Your task to perform on an android device: Open Wikipedia Image 0: 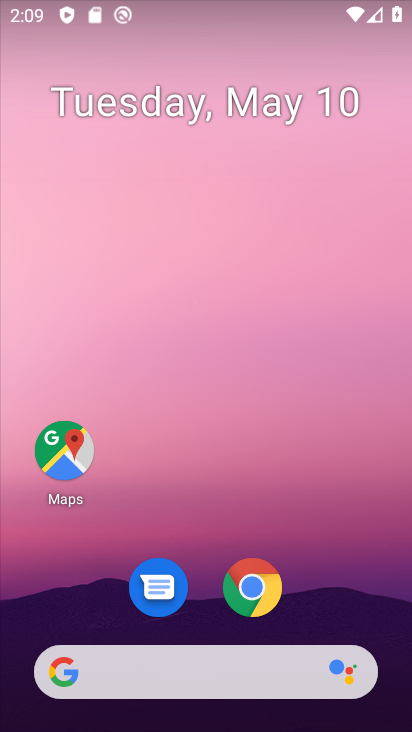
Step 0: click (258, 594)
Your task to perform on an android device: Open Wikipedia Image 1: 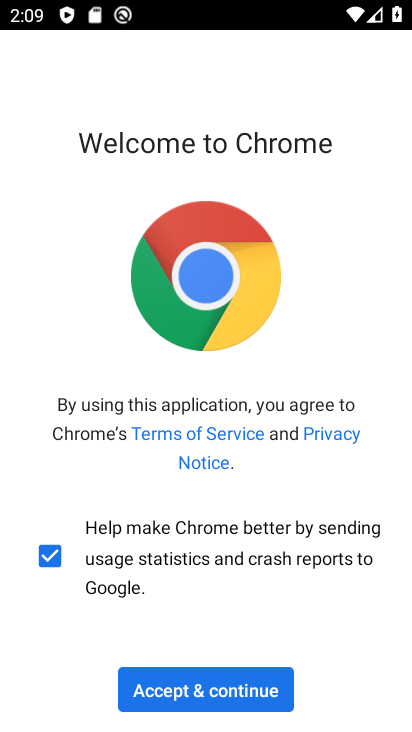
Step 1: click (232, 701)
Your task to perform on an android device: Open Wikipedia Image 2: 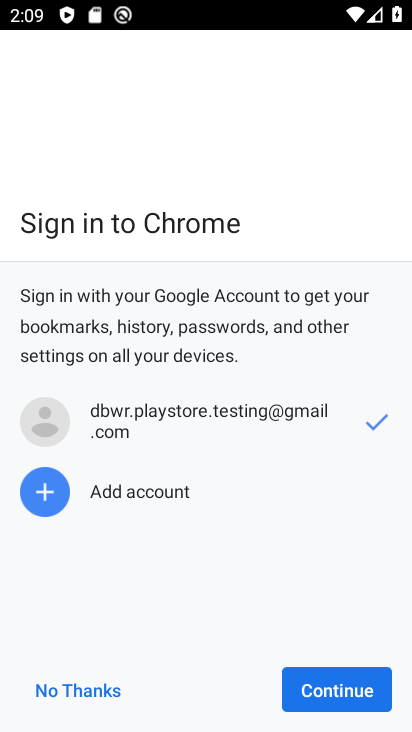
Step 2: click (353, 693)
Your task to perform on an android device: Open Wikipedia Image 3: 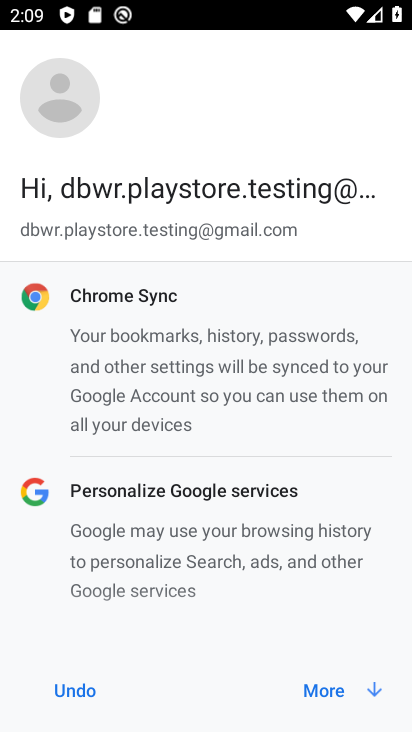
Step 3: click (354, 692)
Your task to perform on an android device: Open Wikipedia Image 4: 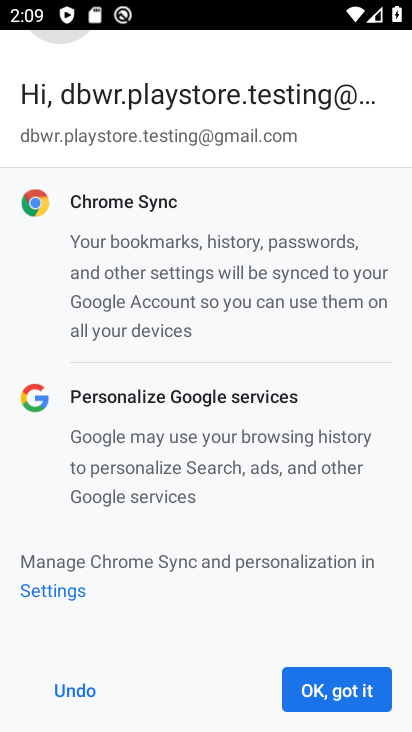
Step 4: click (354, 692)
Your task to perform on an android device: Open Wikipedia Image 5: 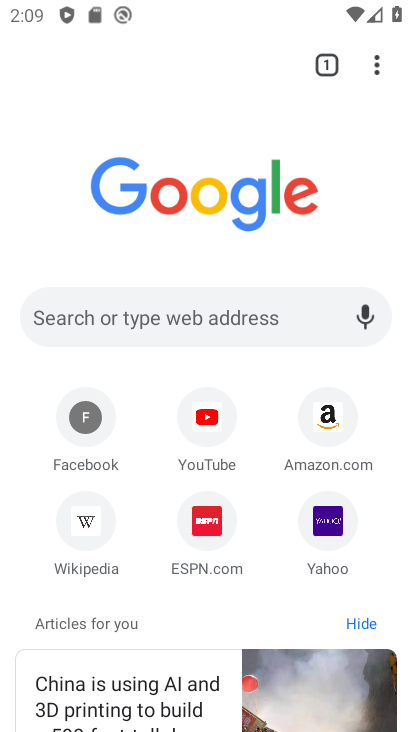
Step 5: click (88, 541)
Your task to perform on an android device: Open Wikipedia Image 6: 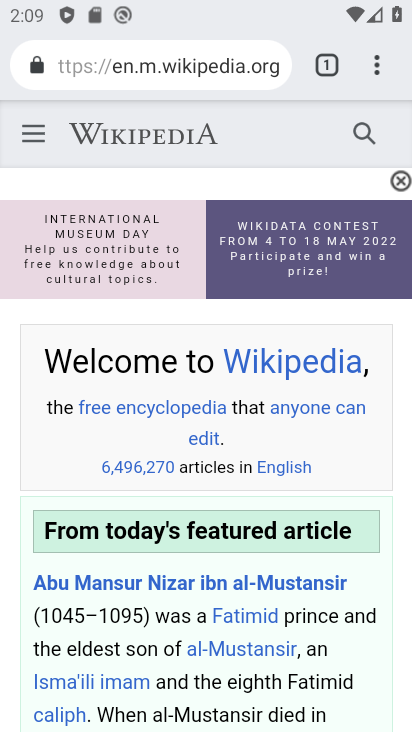
Step 6: task complete